Your task to perform on an android device: delete a single message in the gmail app Image 0: 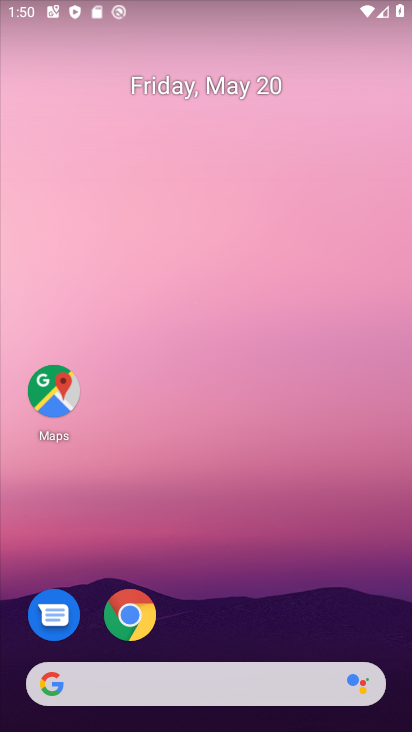
Step 0: drag from (322, 598) to (317, 237)
Your task to perform on an android device: delete a single message in the gmail app Image 1: 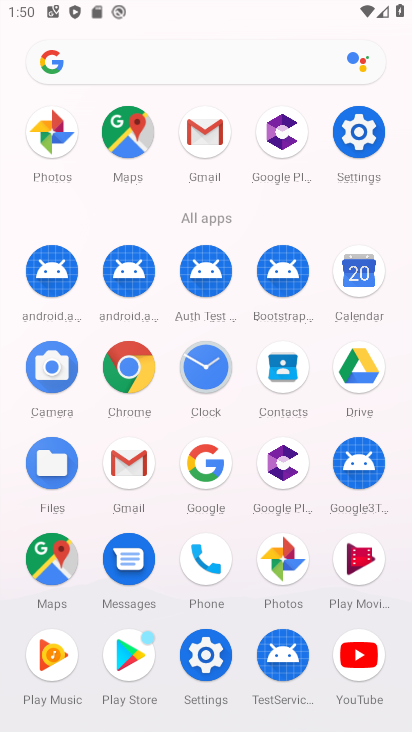
Step 1: click (142, 446)
Your task to perform on an android device: delete a single message in the gmail app Image 2: 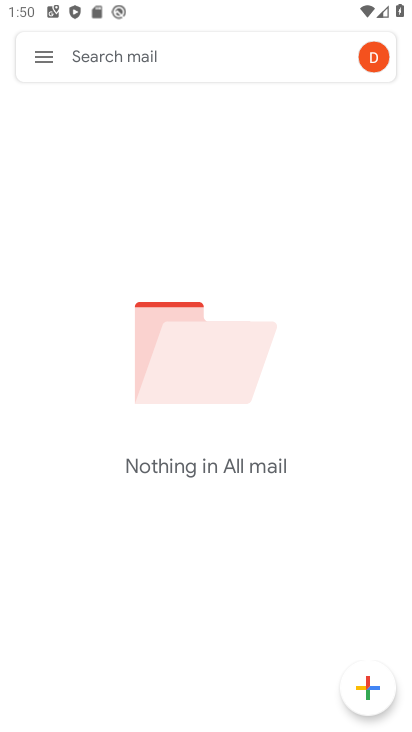
Step 2: click (49, 57)
Your task to perform on an android device: delete a single message in the gmail app Image 3: 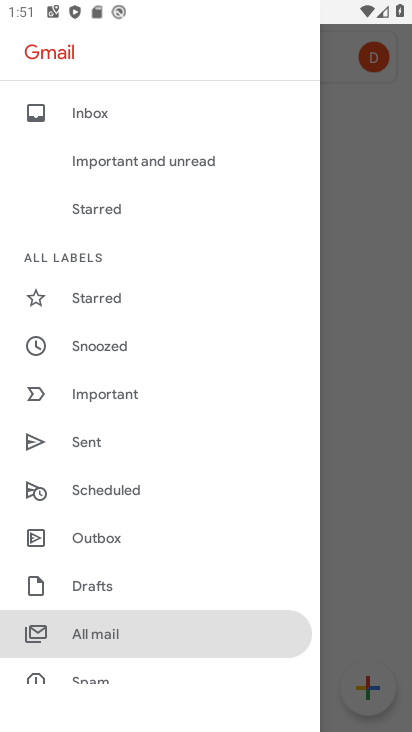
Step 3: drag from (167, 182) to (163, 569)
Your task to perform on an android device: delete a single message in the gmail app Image 4: 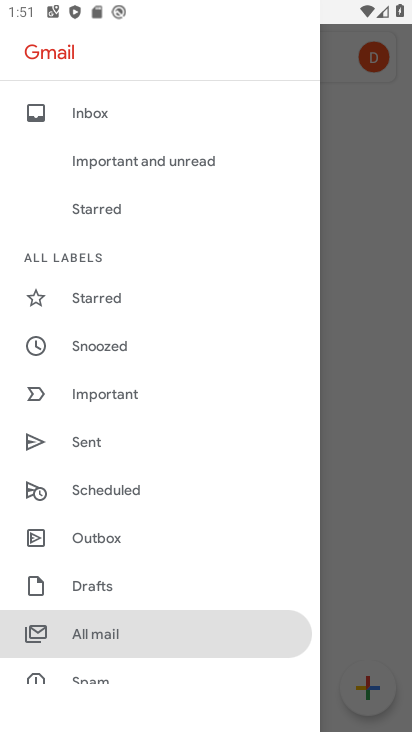
Step 4: drag from (171, 542) to (179, 194)
Your task to perform on an android device: delete a single message in the gmail app Image 5: 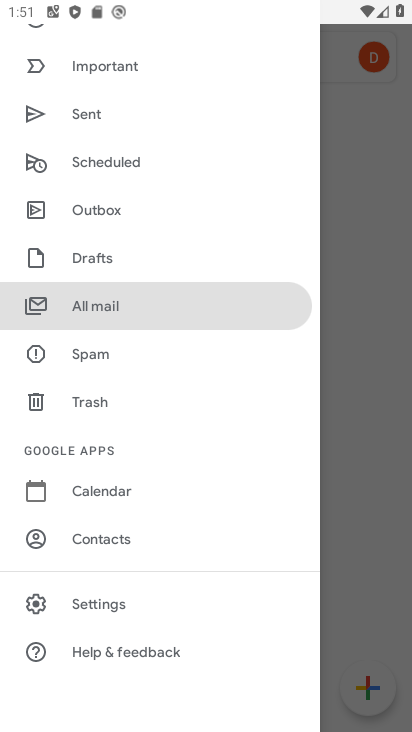
Step 5: click (117, 323)
Your task to perform on an android device: delete a single message in the gmail app Image 6: 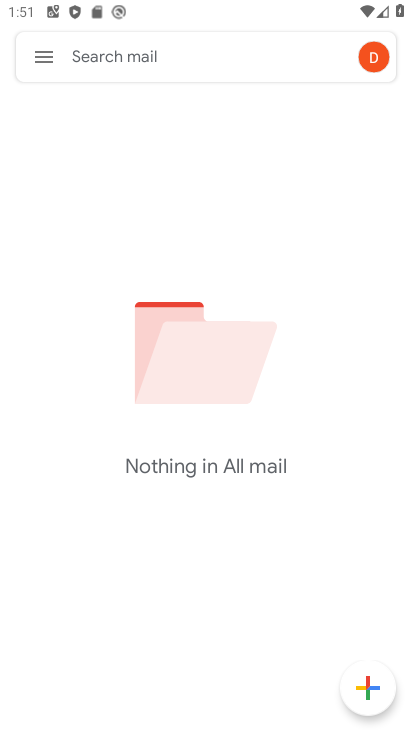
Step 6: task complete